Your task to perform on an android device: turn off javascript in the chrome app Image 0: 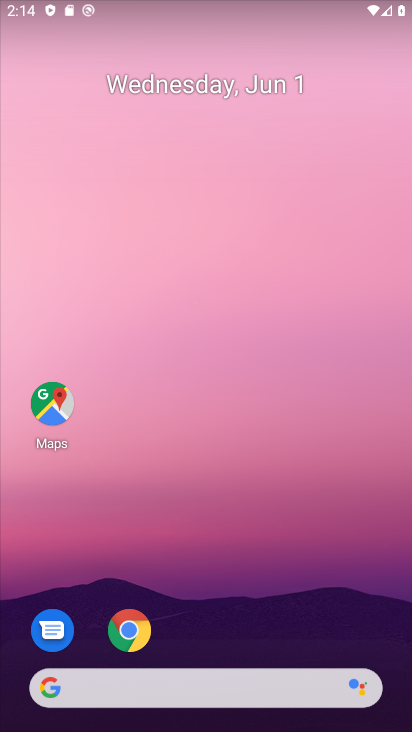
Step 0: click (126, 627)
Your task to perform on an android device: turn off javascript in the chrome app Image 1: 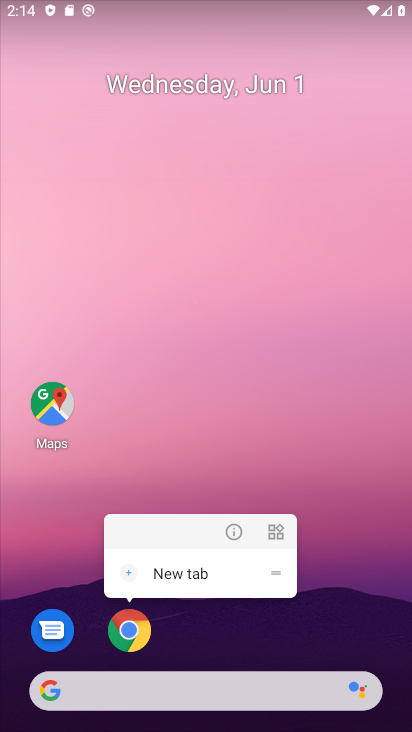
Step 1: click (125, 645)
Your task to perform on an android device: turn off javascript in the chrome app Image 2: 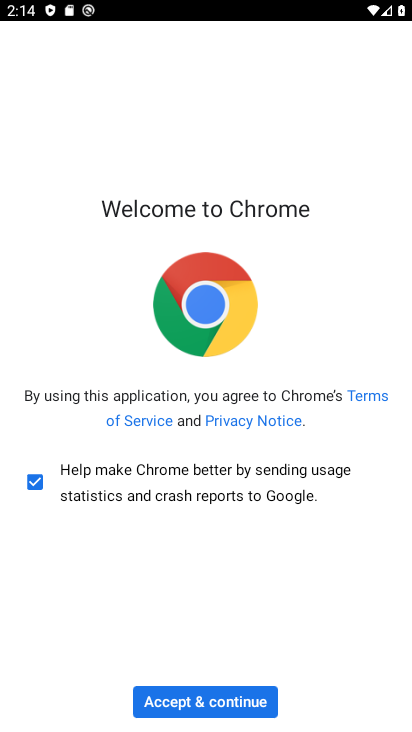
Step 2: click (246, 693)
Your task to perform on an android device: turn off javascript in the chrome app Image 3: 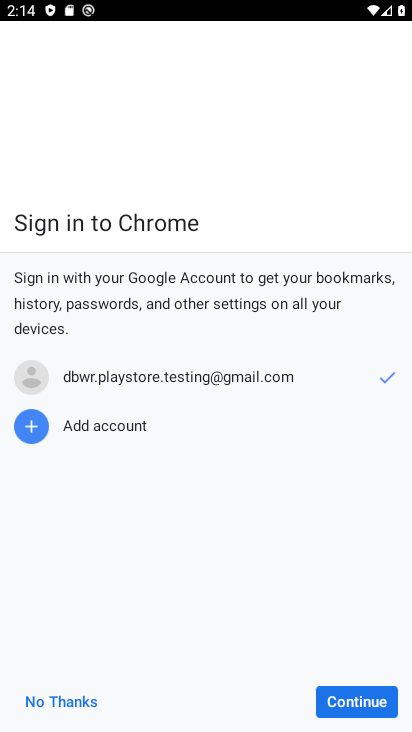
Step 3: click (330, 710)
Your task to perform on an android device: turn off javascript in the chrome app Image 4: 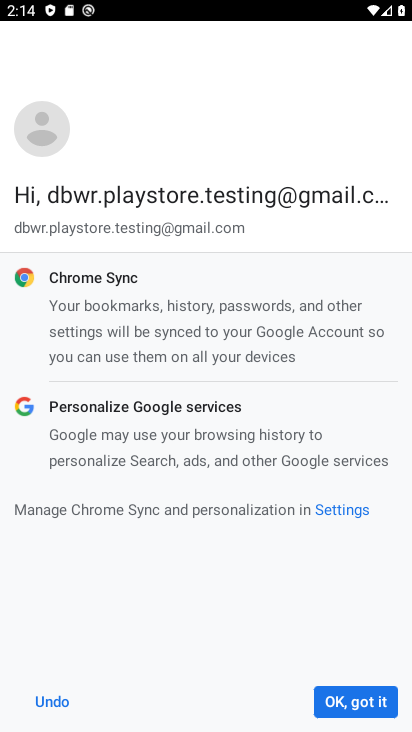
Step 4: click (338, 709)
Your task to perform on an android device: turn off javascript in the chrome app Image 5: 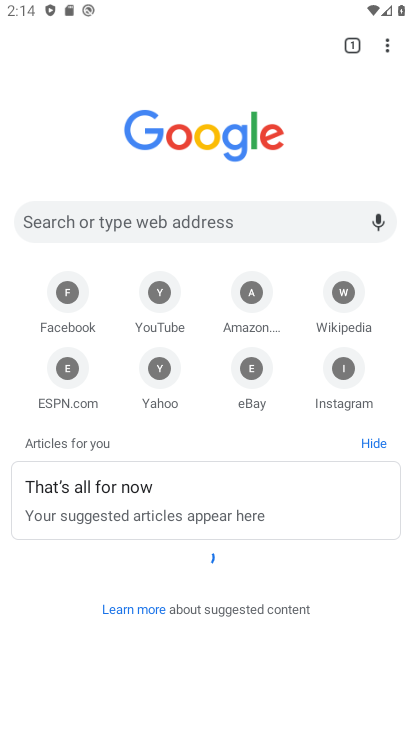
Step 5: drag from (396, 41) to (293, 371)
Your task to perform on an android device: turn off javascript in the chrome app Image 6: 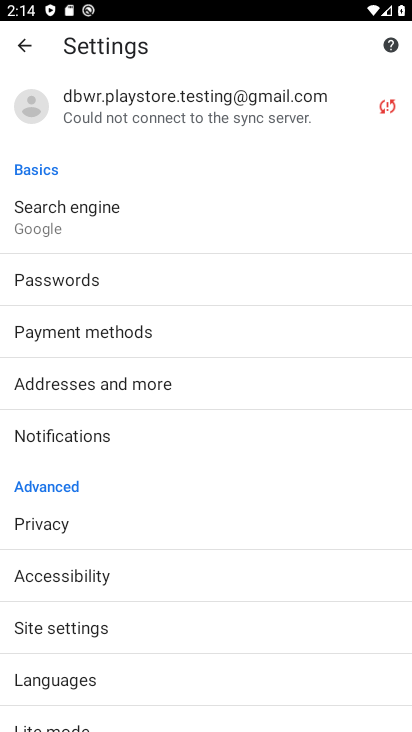
Step 6: drag from (75, 703) to (199, 418)
Your task to perform on an android device: turn off javascript in the chrome app Image 7: 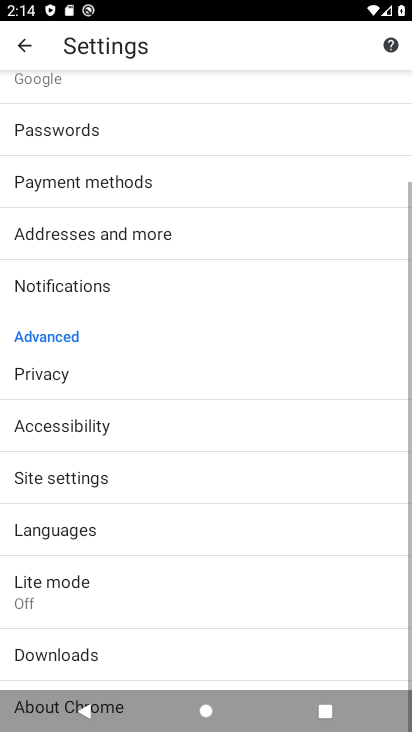
Step 7: click (136, 481)
Your task to perform on an android device: turn off javascript in the chrome app Image 8: 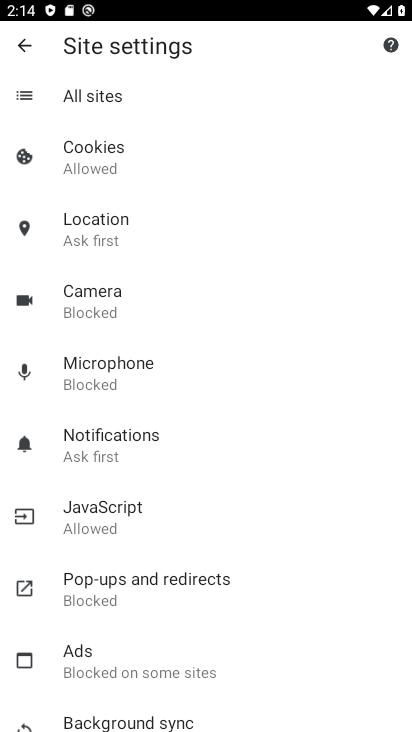
Step 8: click (167, 524)
Your task to perform on an android device: turn off javascript in the chrome app Image 9: 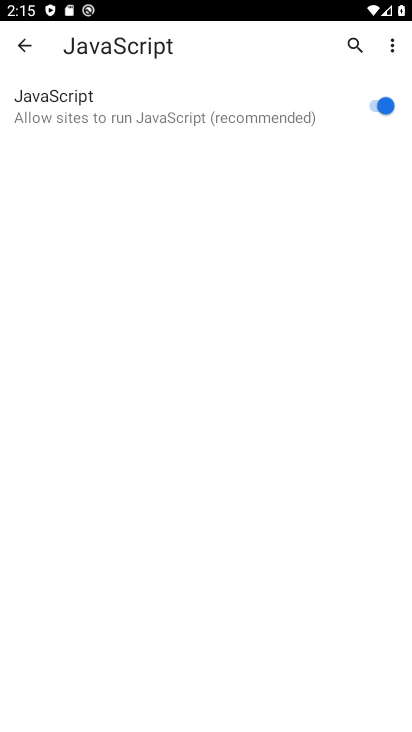
Step 9: click (361, 110)
Your task to perform on an android device: turn off javascript in the chrome app Image 10: 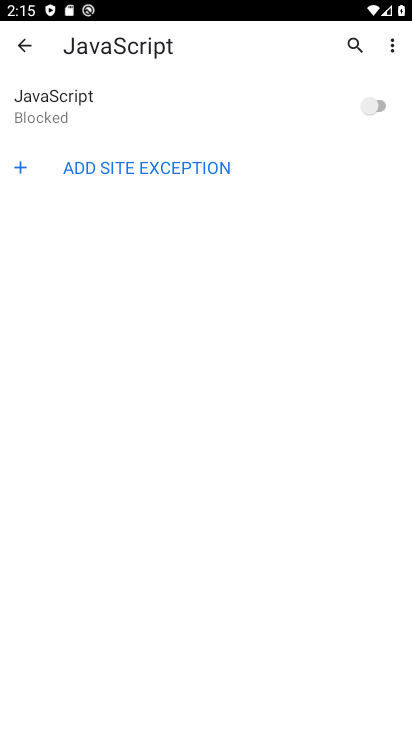
Step 10: task complete